Your task to perform on an android device: Open calendar and show me the first week of next month Image 0: 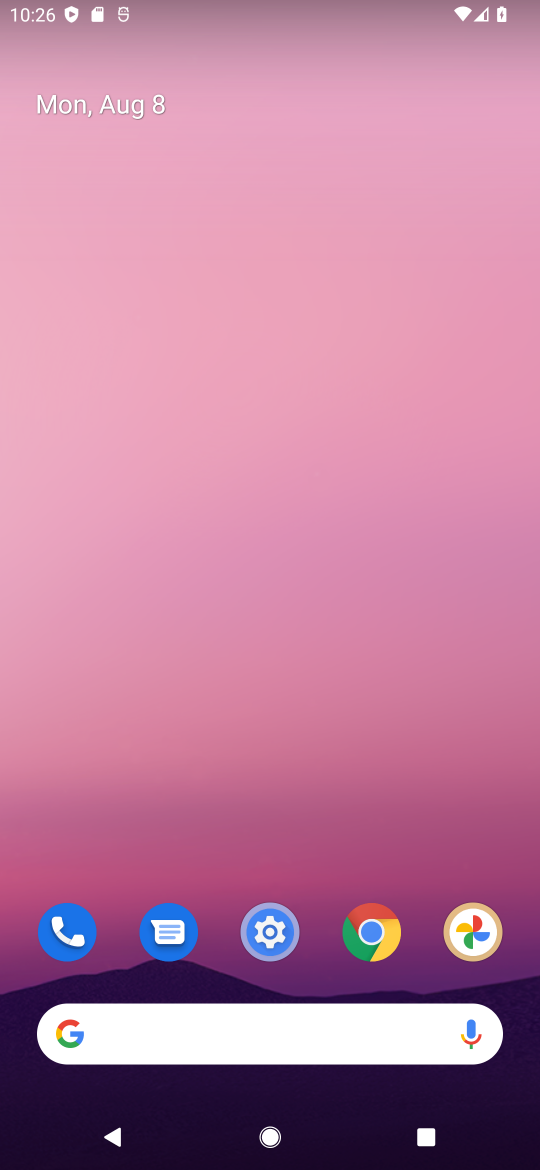
Step 0: click (89, 117)
Your task to perform on an android device: Open calendar and show me the first week of next month Image 1: 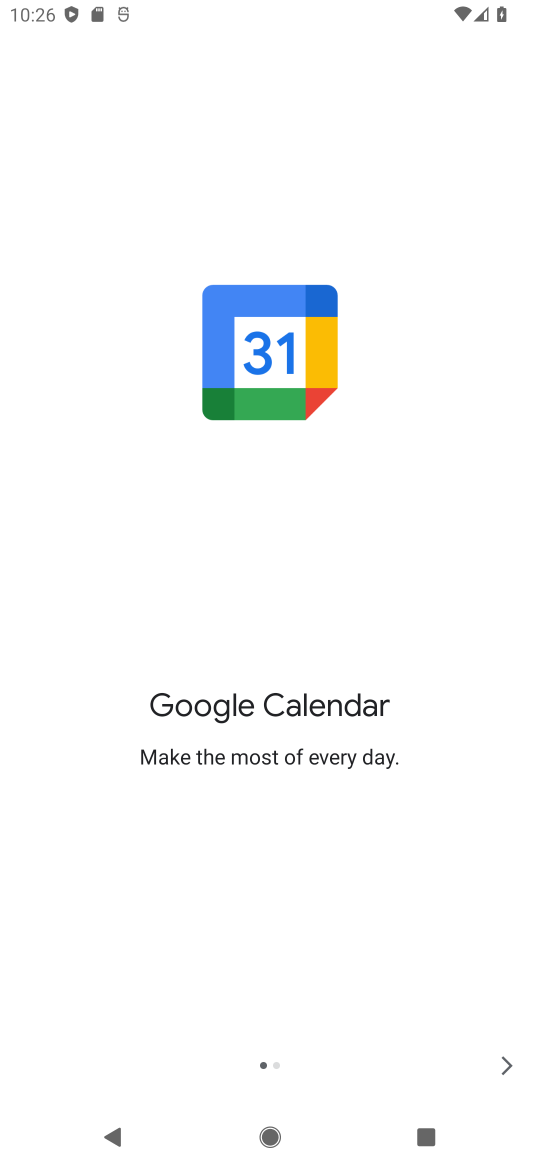
Step 1: click (503, 1069)
Your task to perform on an android device: Open calendar and show me the first week of next month Image 2: 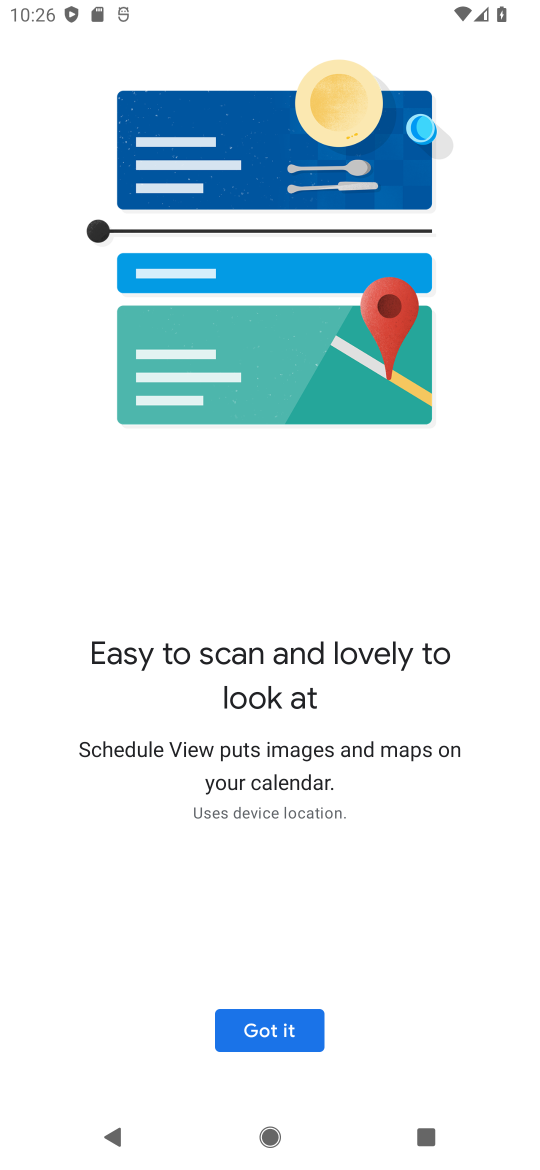
Step 2: click (285, 1037)
Your task to perform on an android device: Open calendar and show me the first week of next month Image 3: 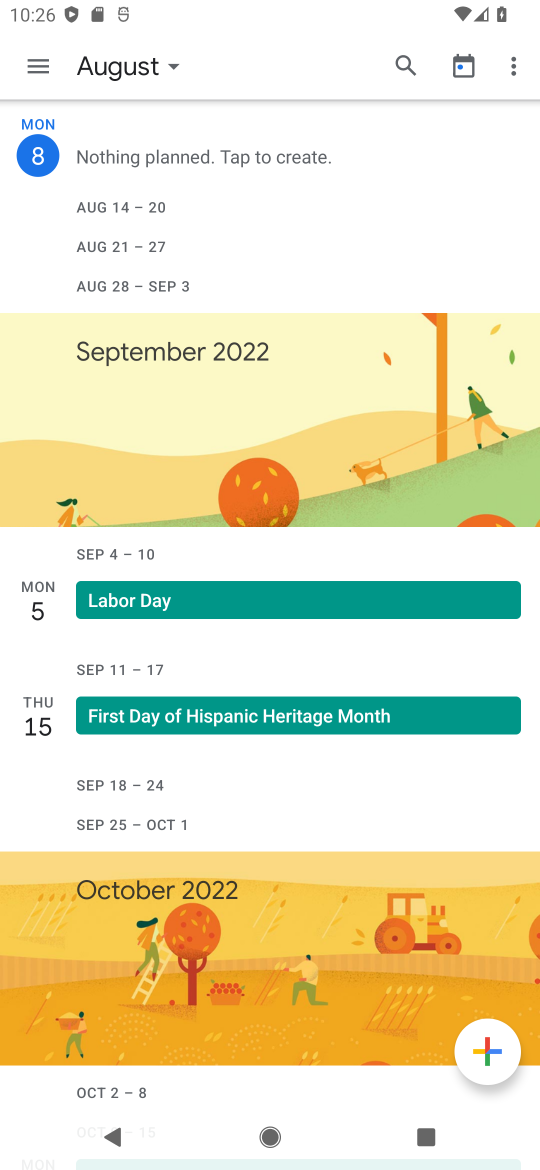
Step 3: click (119, 103)
Your task to perform on an android device: Open calendar and show me the first week of next month Image 4: 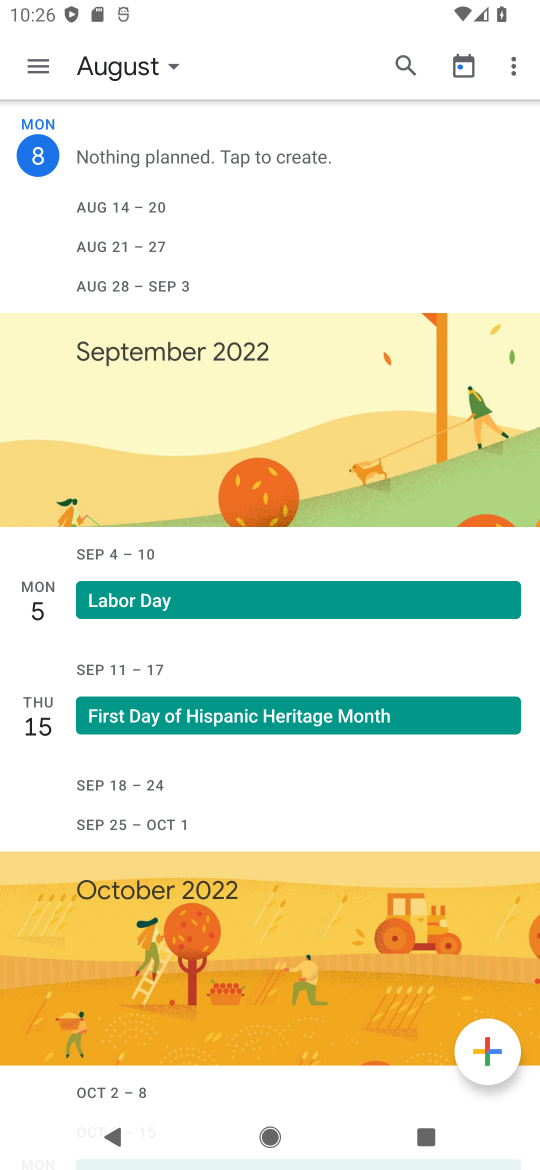
Step 4: click (145, 60)
Your task to perform on an android device: Open calendar and show me the first week of next month Image 5: 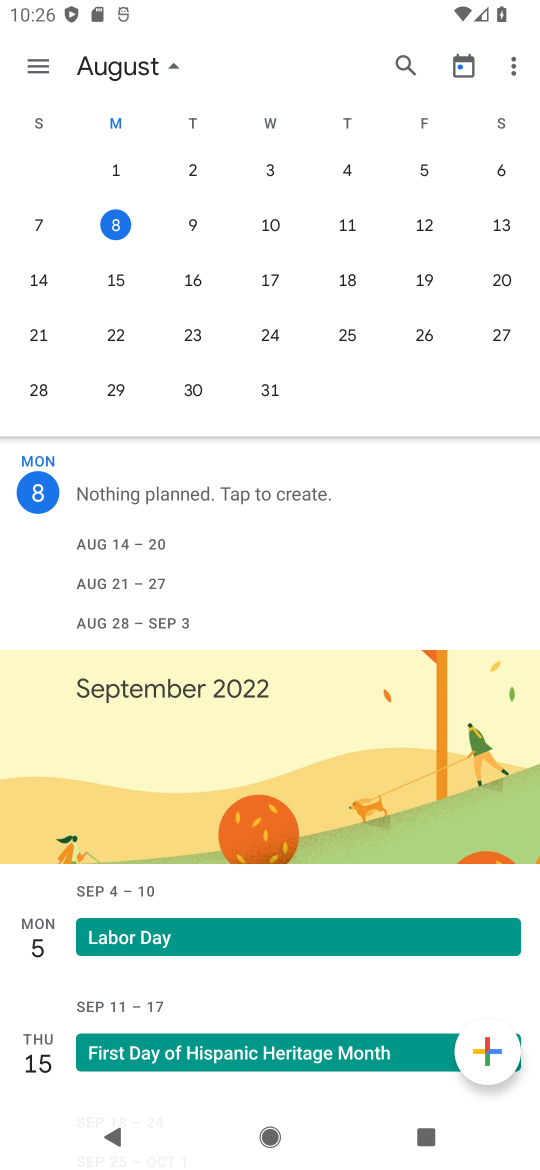
Step 5: drag from (501, 414) to (346, 419)
Your task to perform on an android device: Open calendar and show me the first week of next month Image 6: 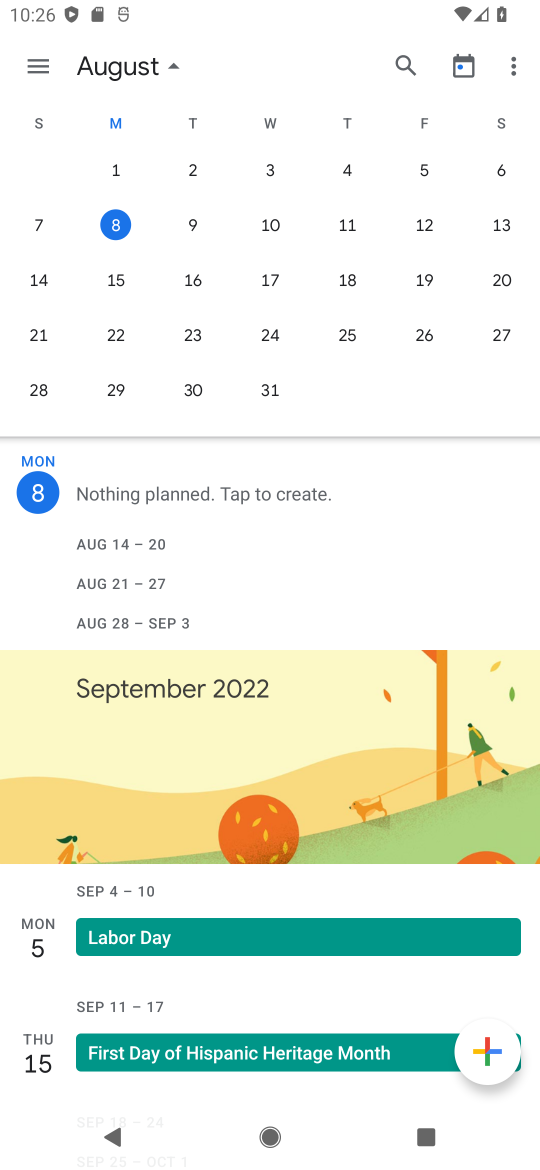
Step 6: drag from (346, 419) to (80, 374)
Your task to perform on an android device: Open calendar and show me the first week of next month Image 7: 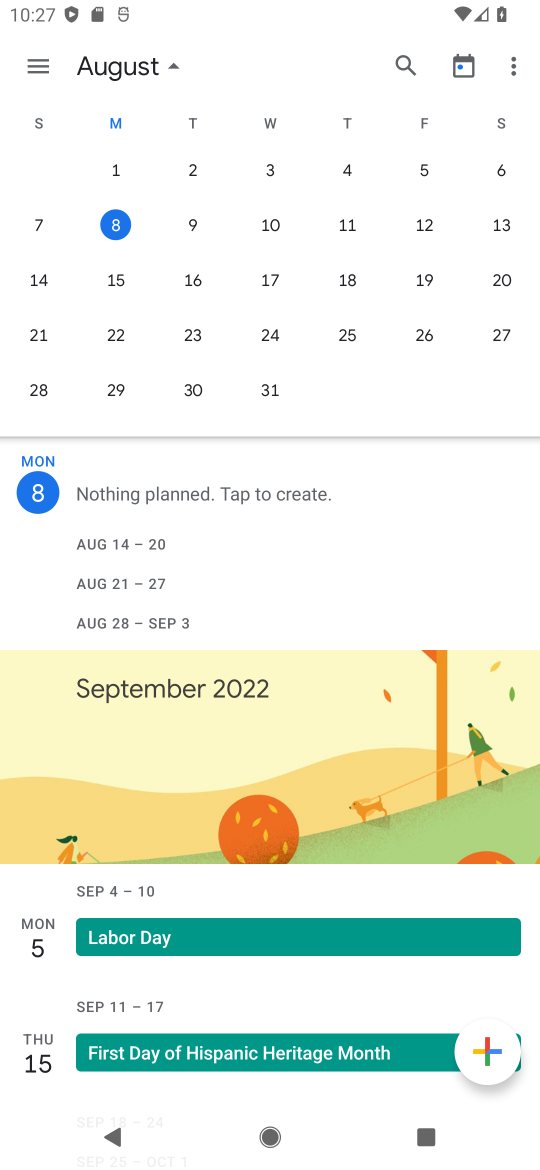
Step 7: drag from (479, 403) to (34, 335)
Your task to perform on an android device: Open calendar and show me the first week of next month Image 8: 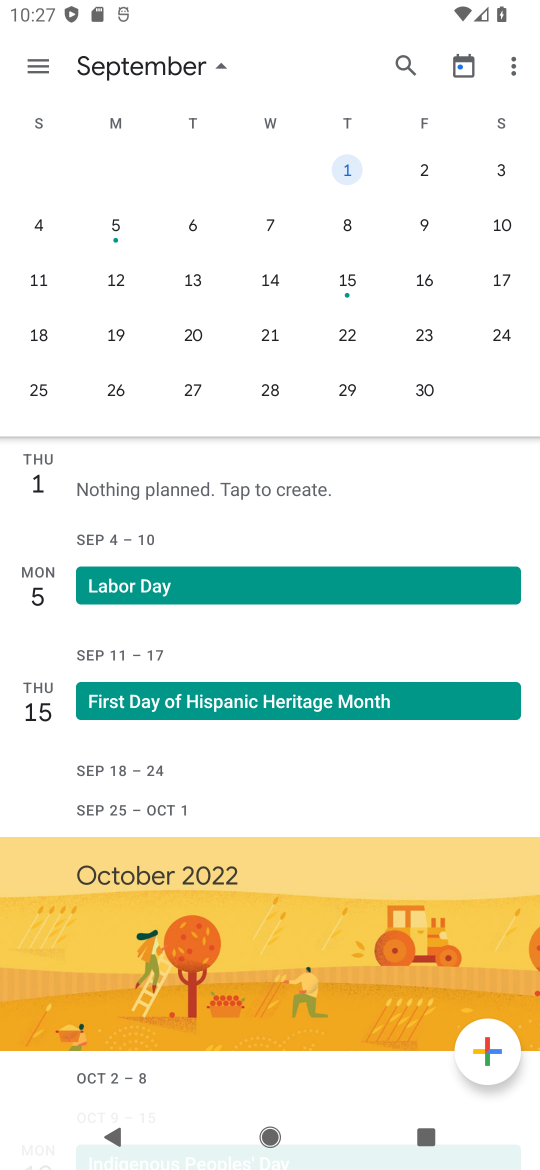
Step 8: click (408, 168)
Your task to perform on an android device: Open calendar and show me the first week of next month Image 9: 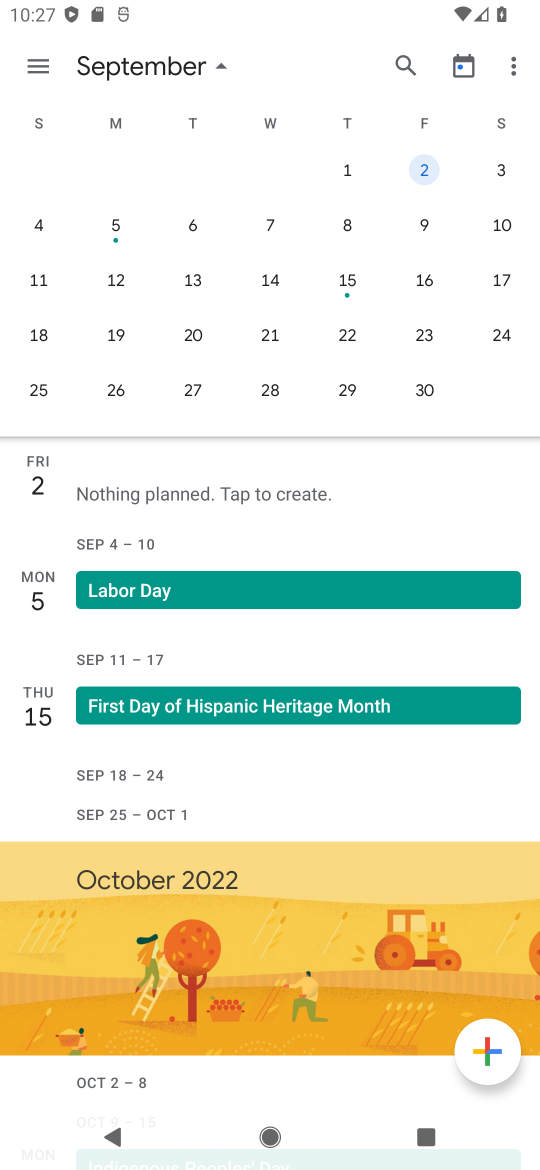
Step 9: task complete